Your task to perform on an android device: open a new tab in the chrome app Image 0: 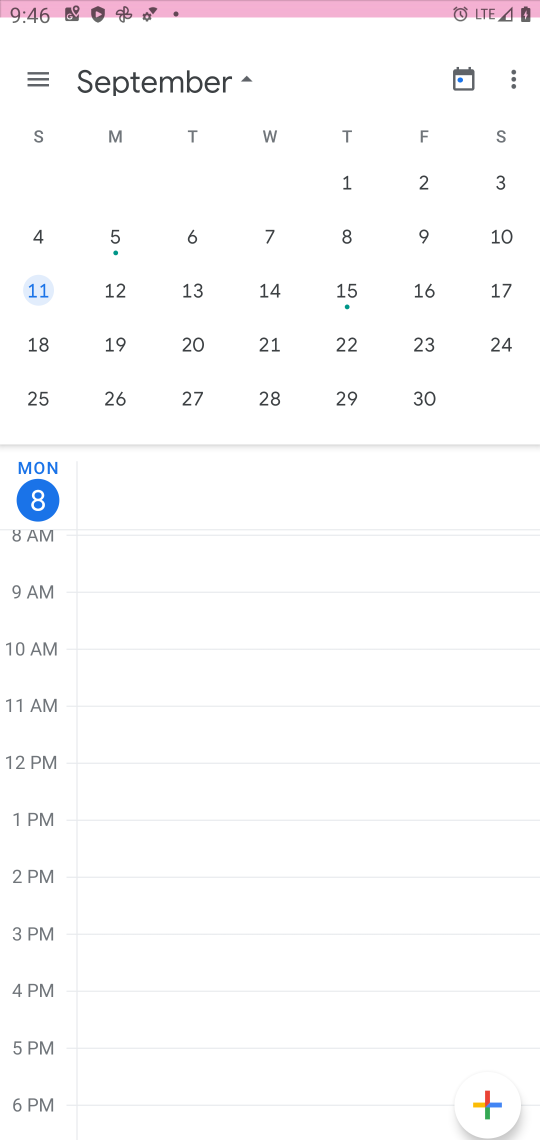
Step 0: drag from (452, 836) to (255, 94)
Your task to perform on an android device: open a new tab in the chrome app Image 1: 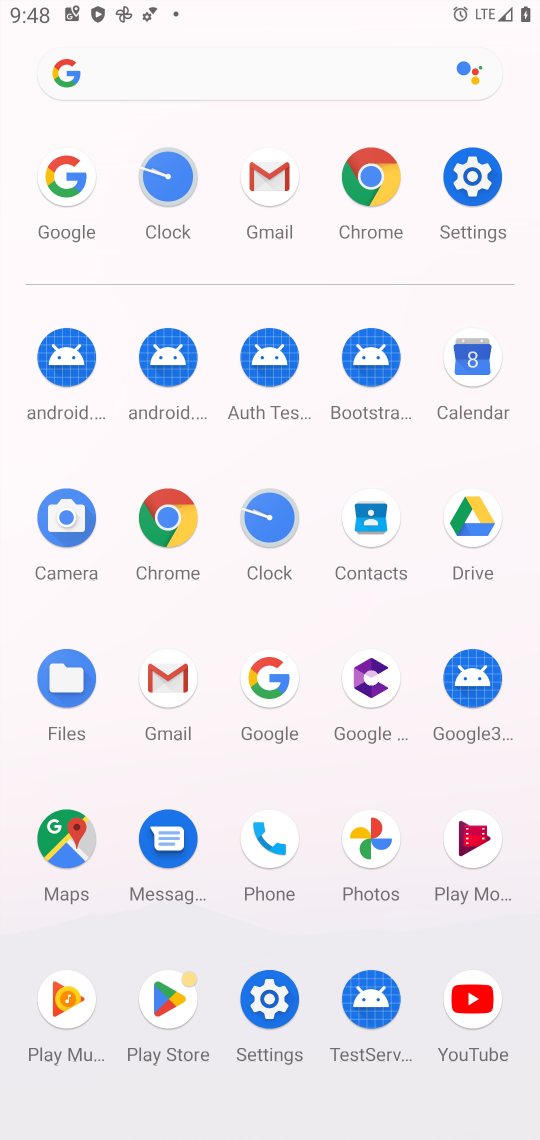
Step 1: click (177, 505)
Your task to perform on an android device: open a new tab in the chrome app Image 2: 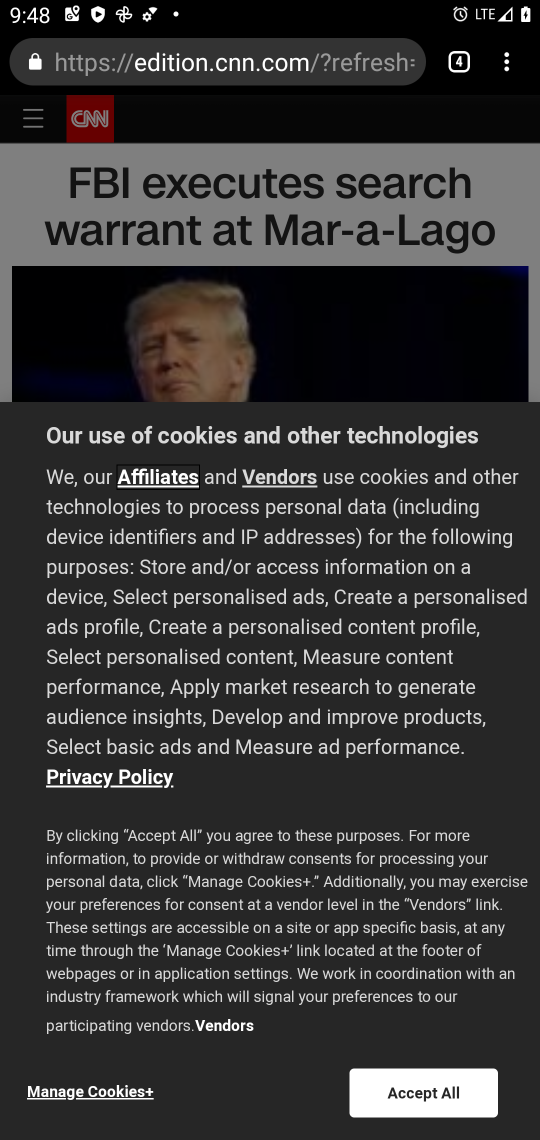
Step 2: click (506, 62)
Your task to perform on an android device: open a new tab in the chrome app Image 3: 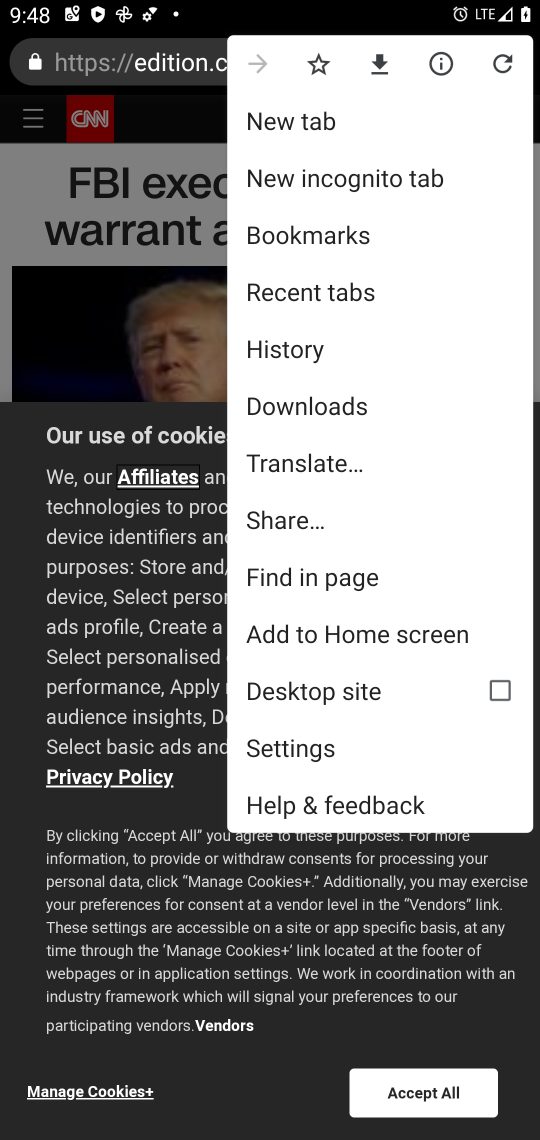
Step 3: click (307, 128)
Your task to perform on an android device: open a new tab in the chrome app Image 4: 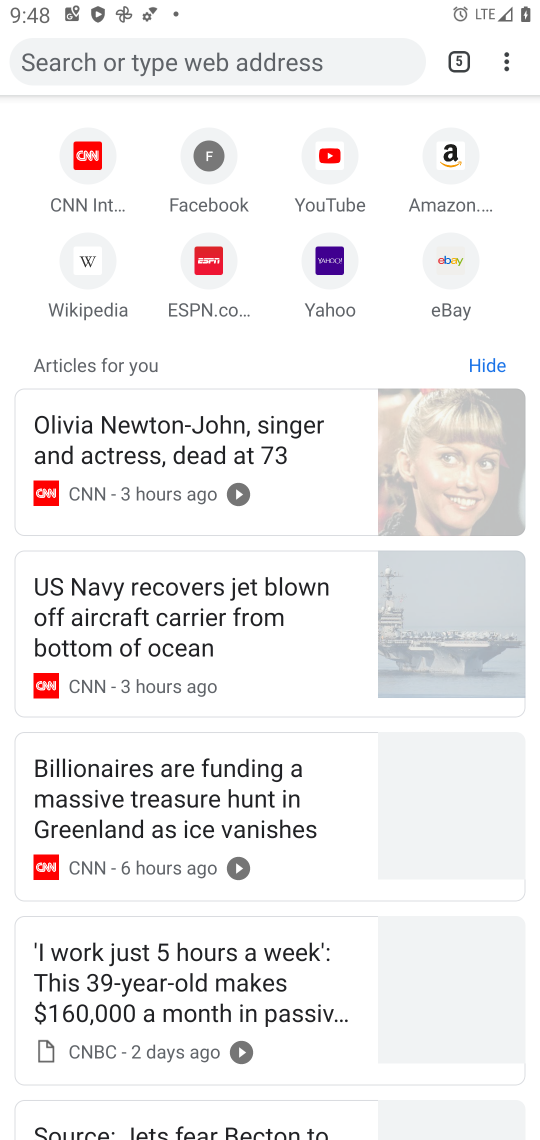
Step 4: task complete